Your task to perform on an android device: Open CNN.com Image 0: 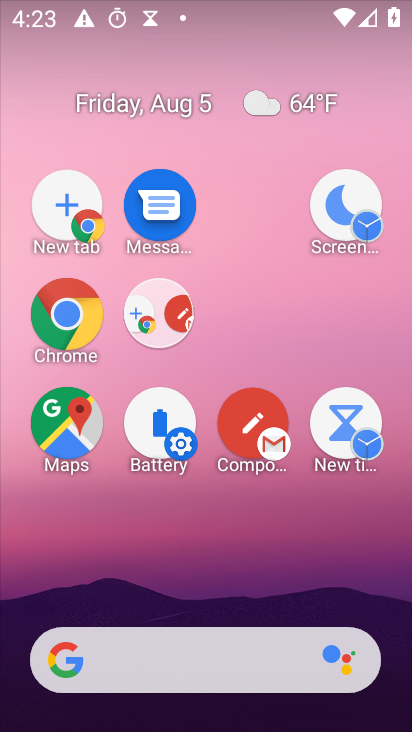
Step 0: drag from (167, 531) to (112, 81)
Your task to perform on an android device: Open CNN.com Image 1: 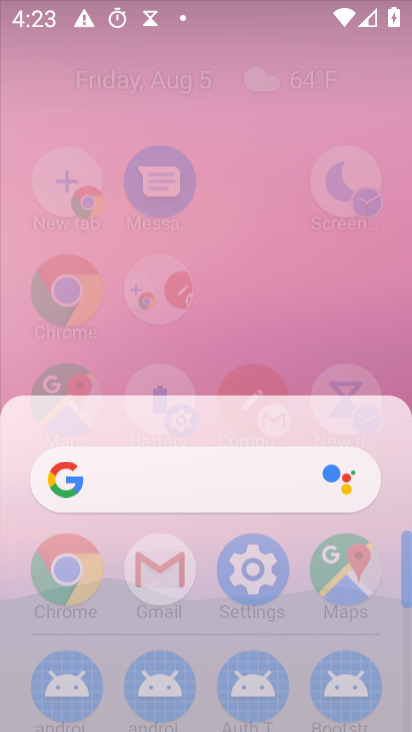
Step 1: drag from (168, 398) to (189, 167)
Your task to perform on an android device: Open CNN.com Image 2: 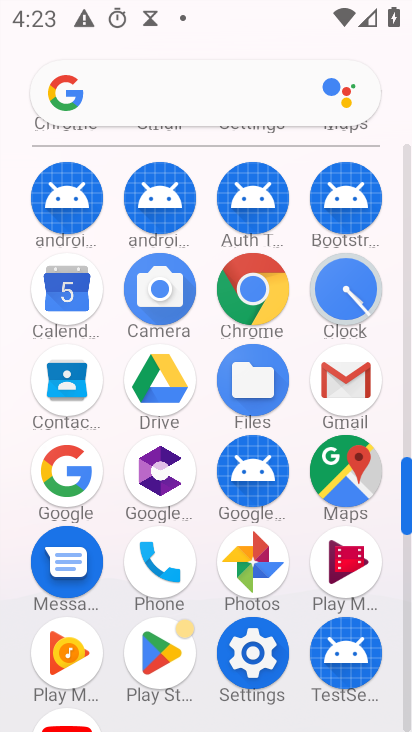
Step 2: click (244, 287)
Your task to perform on an android device: Open CNN.com Image 3: 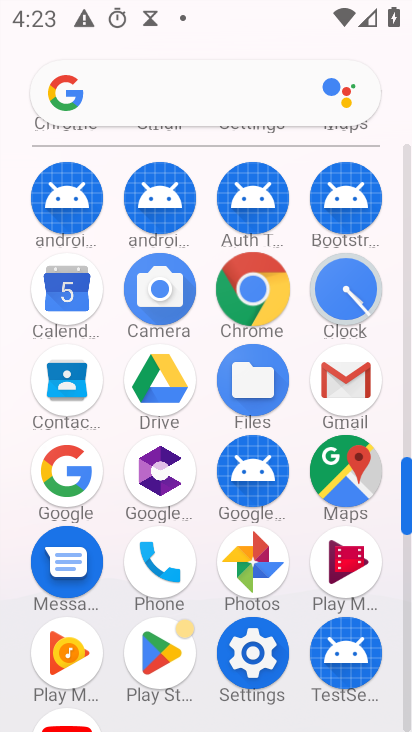
Step 3: click (249, 284)
Your task to perform on an android device: Open CNN.com Image 4: 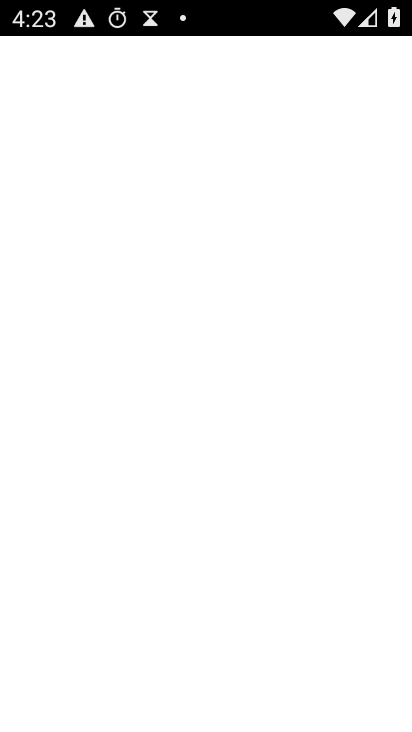
Step 4: click (247, 277)
Your task to perform on an android device: Open CNN.com Image 5: 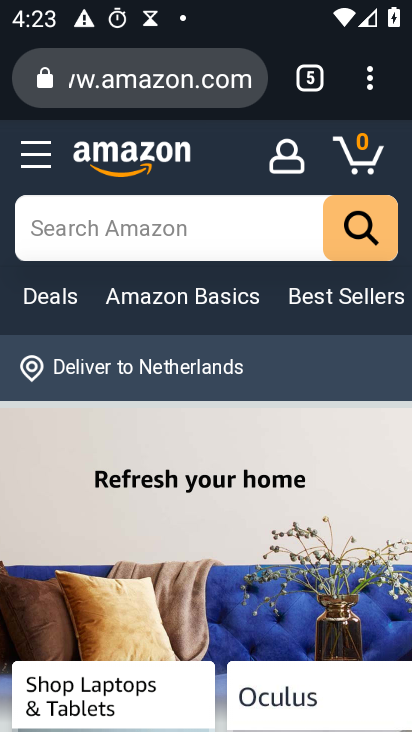
Step 5: drag from (361, 78) to (101, 143)
Your task to perform on an android device: Open CNN.com Image 6: 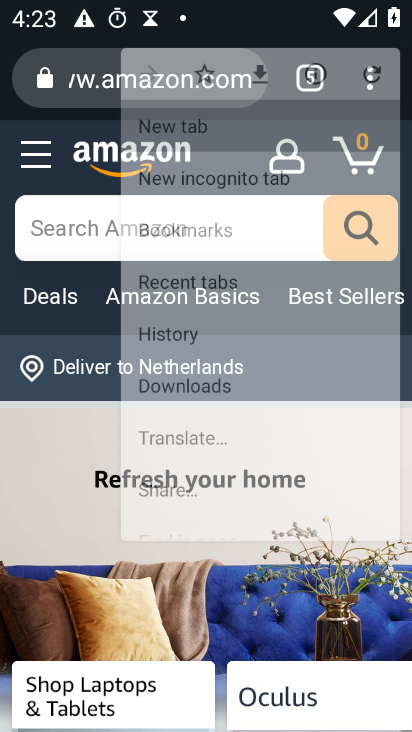
Step 6: click (101, 142)
Your task to perform on an android device: Open CNN.com Image 7: 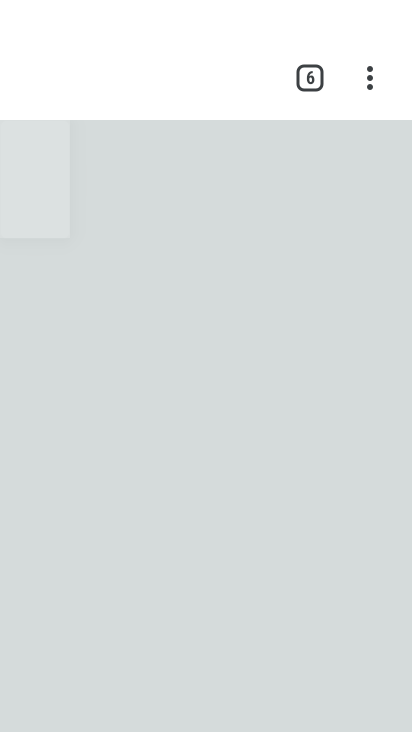
Step 7: click (102, 141)
Your task to perform on an android device: Open CNN.com Image 8: 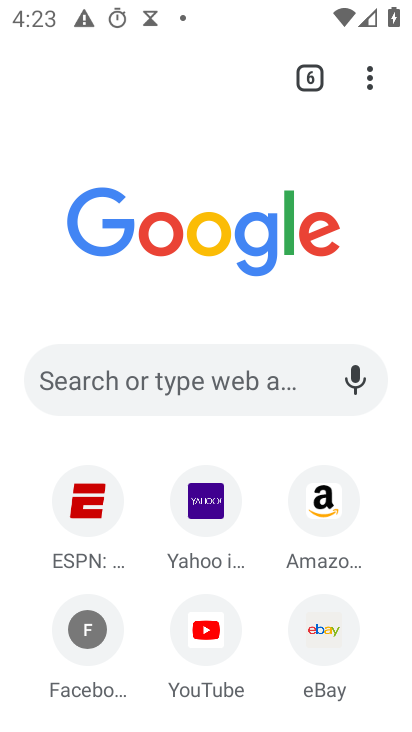
Step 8: click (141, 363)
Your task to perform on an android device: Open CNN.com Image 9: 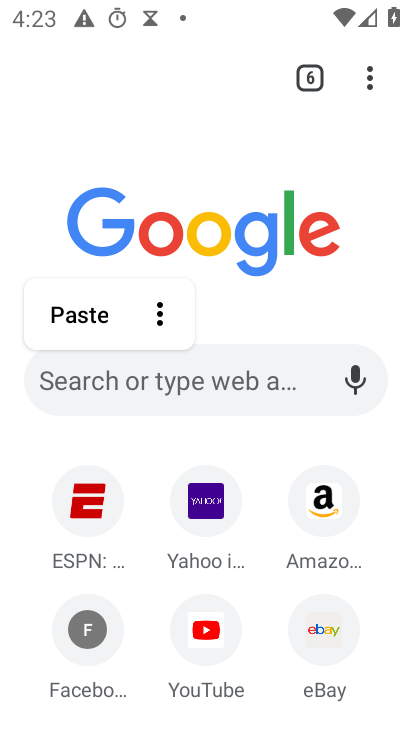
Step 9: type "CNN.Com"
Your task to perform on an android device: Open CNN.com Image 10: 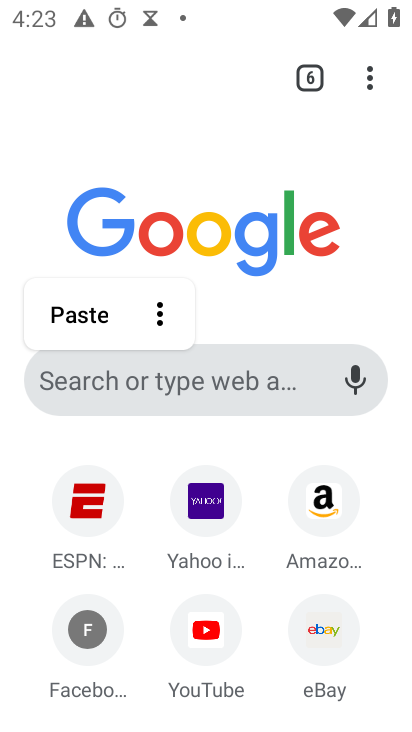
Step 10: click (74, 376)
Your task to perform on an android device: Open CNN.com Image 11: 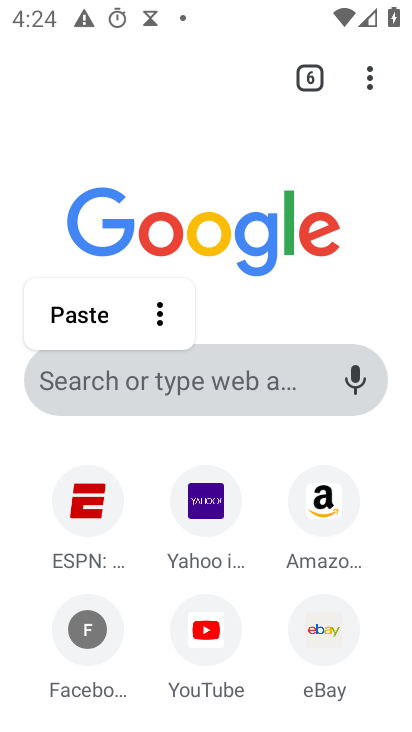
Step 11: click (74, 375)
Your task to perform on an android device: Open CNN.com Image 12: 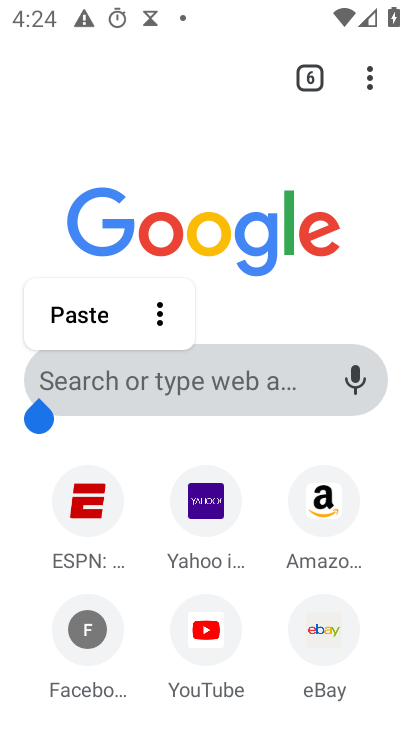
Step 12: click (74, 375)
Your task to perform on an android device: Open CNN.com Image 13: 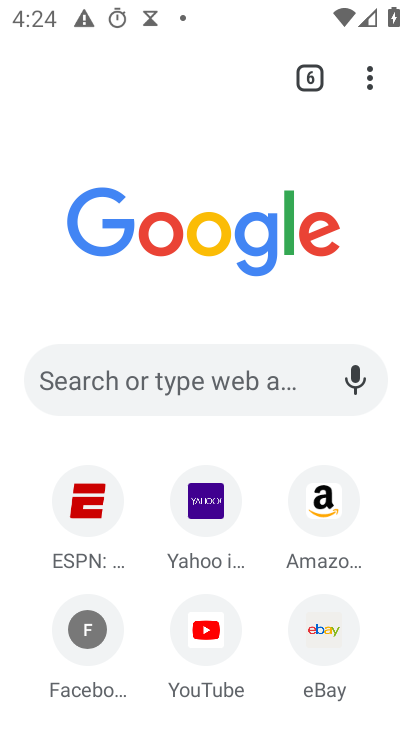
Step 13: click (72, 385)
Your task to perform on an android device: Open CNN.com Image 14: 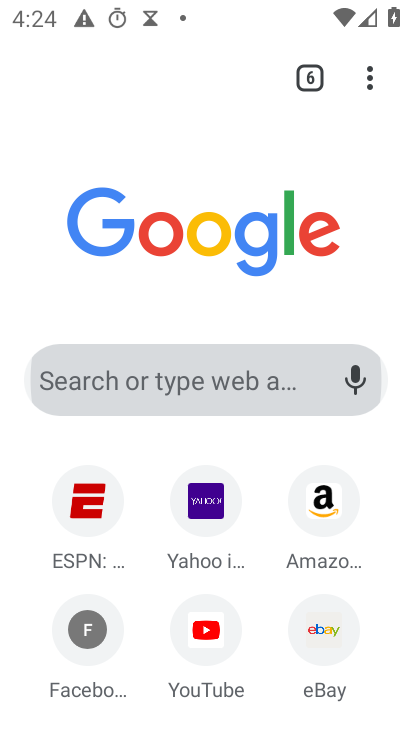
Step 14: click (72, 384)
Your task to perform on an android device: Open CNN.com Image 15: 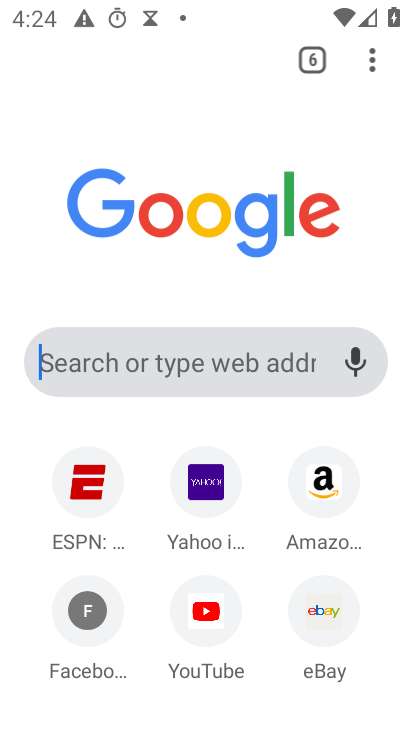
Step 15: click (75, 383)
Your task to perform on an android device: Open CNN.com Image 16: 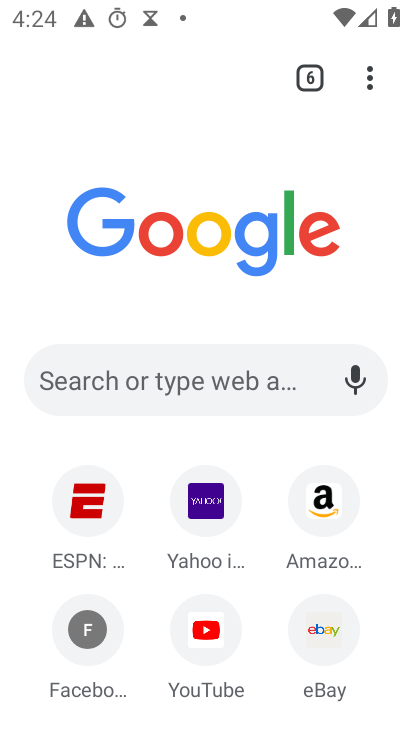
Step 16: click (23, 376)
Your task to perform on an android device: Open CNN.com Image 17: 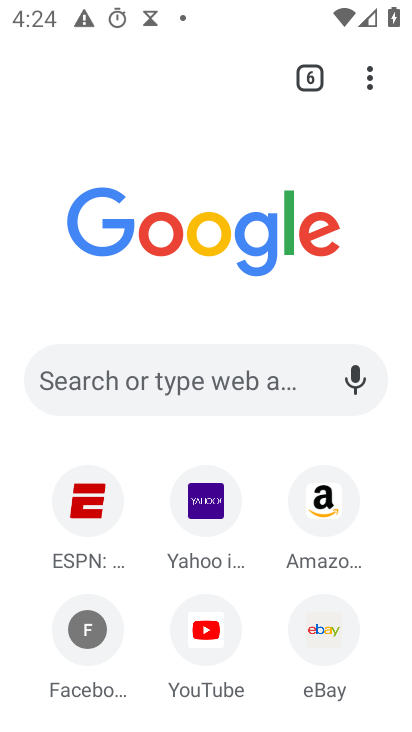
Step 17: click (73, 376)
Your task to perform on an android device: Open CNN.com Image 18: 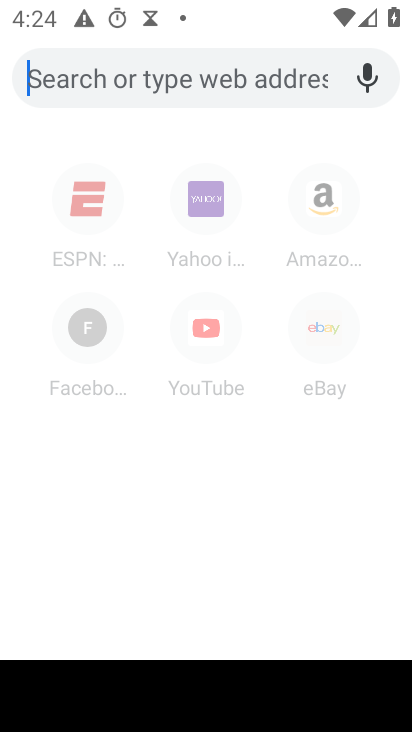
Step 18: type "CNN.com"
Your task to perform on an android device: Open CNN.com Image 19: 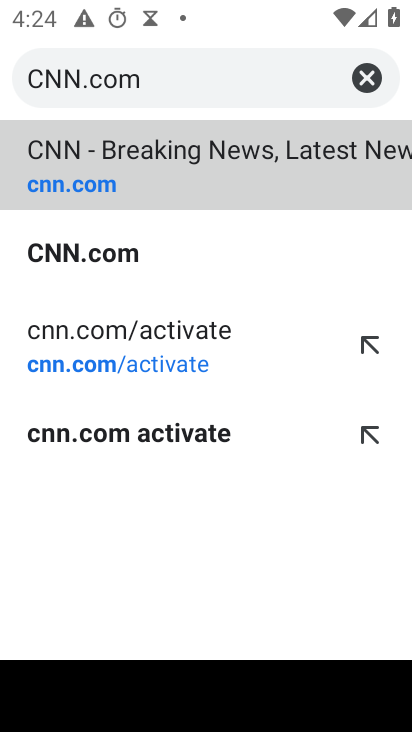
Step 19: click (109, 130)
Your task to perform on an android device: Open CNN.com Image 20: 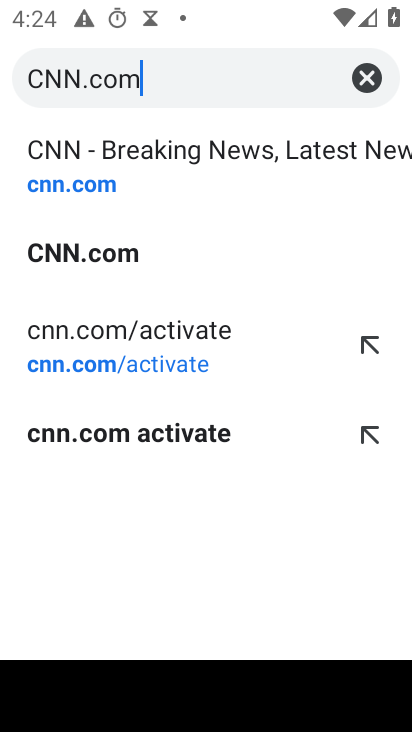
Step 20: click (104, 132)
Your task to perform on an android device: Open CNN.com Image 21: 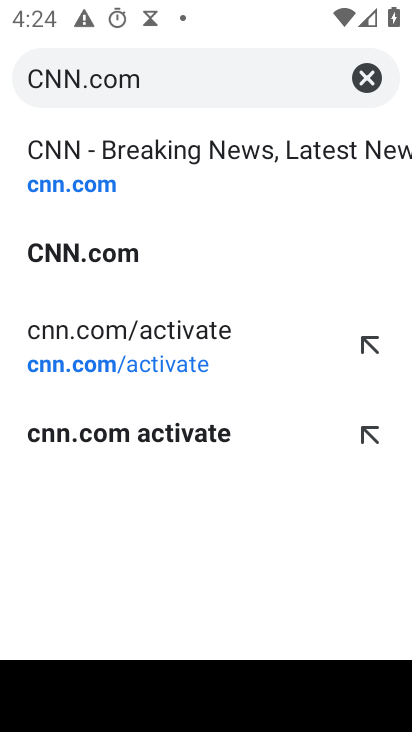
Step 21: click (110, 130)
Your task to perform on an android device: Open CNN.com Image 22: 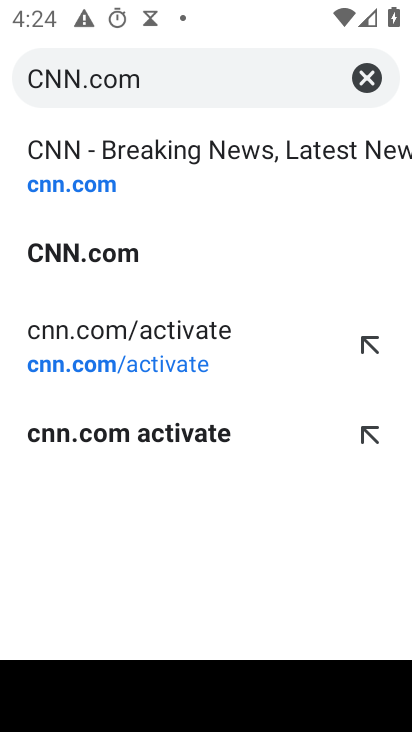
Step 22: click (112, 131)
Your task to perform on an android device: Open CNN.com Image 23: 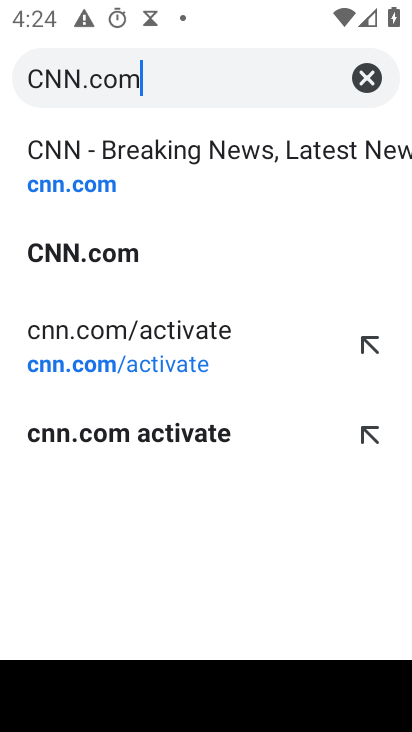
Step 23: click (112, 161)
Your task to perform on an android device: Open CNN.com Image 24: 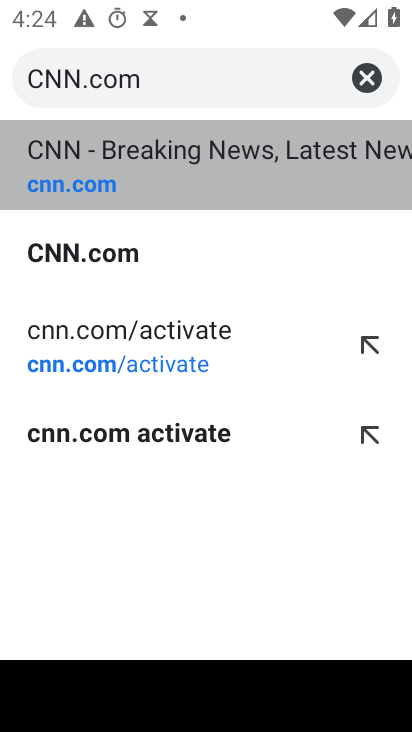
Step 24: click (88, 176)
Your task to perform on an android device: Open CNN.com Image 25: 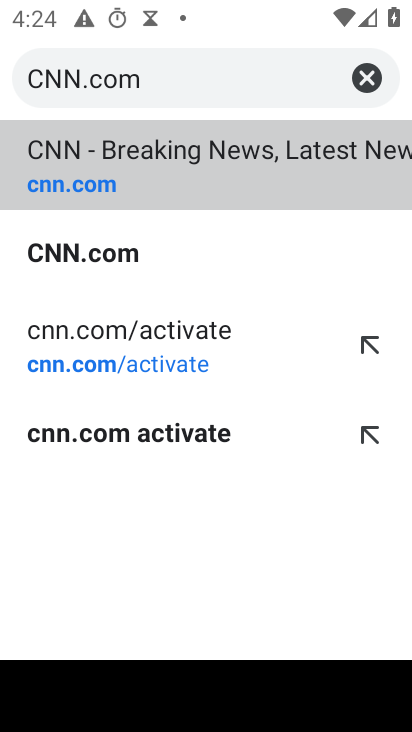
Step 25: click (66, 184)
Your task to perform on an android device: Open CNN.com Image 26: 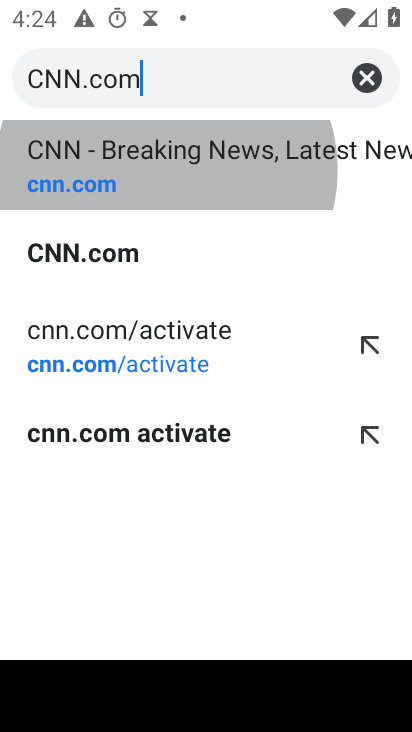
Step 26: click (67, 186)
Your task to perform on an android device: Open CNN.com Image 27: 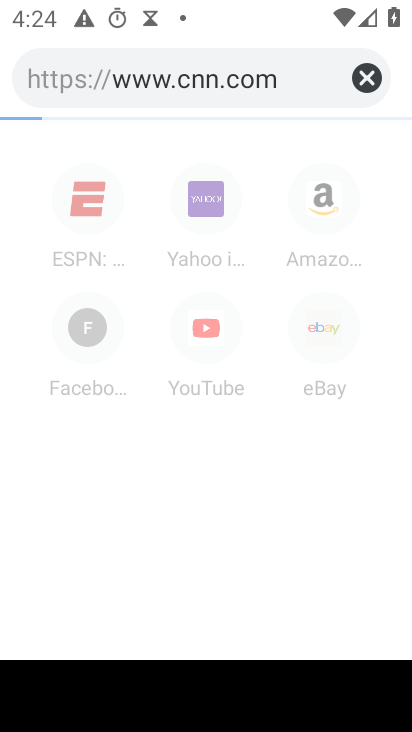
Step 27: click (68, 185)
Your task to perform on an android device: Open CNN.com Image 28: 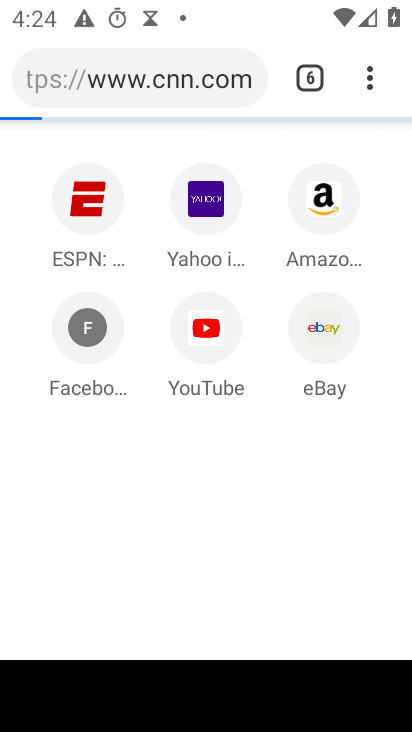
Step 28: click (69, 184)
Your task to perform on an android device: Open CNN.com Image 29: 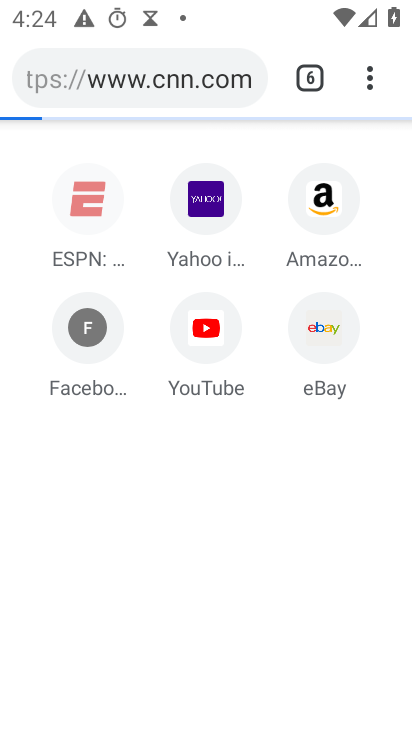
Step 29: click (69, 184)
Your task to perform on an android device: Open CNN.com Image 30: 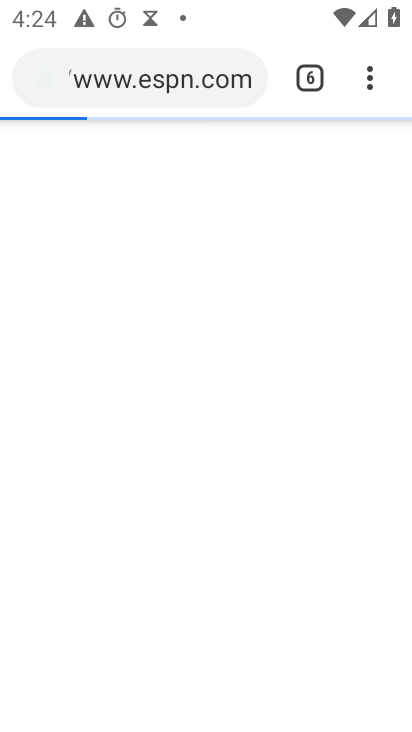
Step 30: task complete